Your task to perform on an android device: set an alarm Image 0: 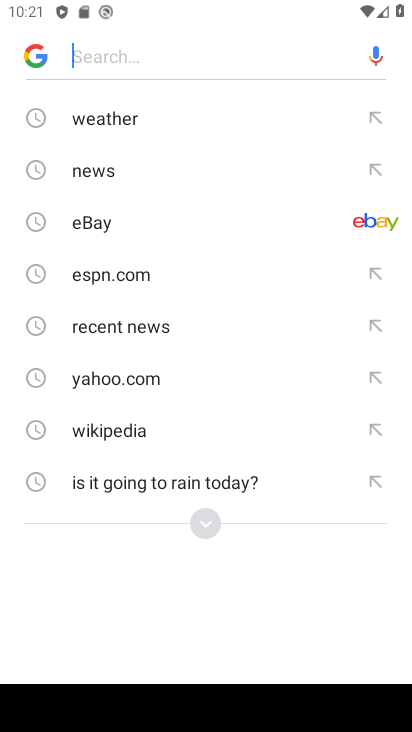
Step 0: press home button
Your task to perform on an android device: set an alarm Image 1: 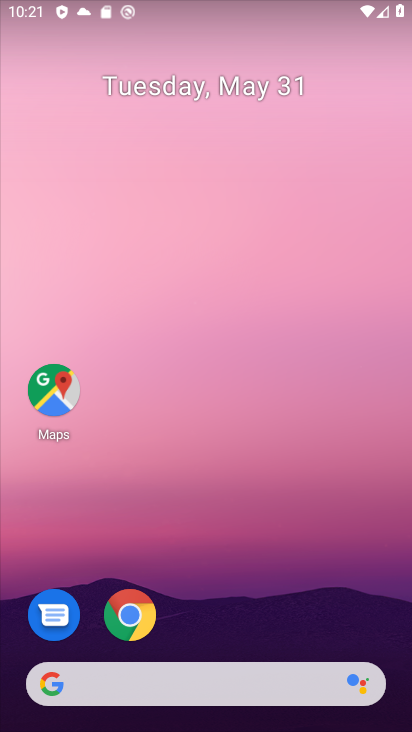
Step 1: drag from (231, 674) to (310, 108)
Your task to perform on an android device: set an alarm Image 2: 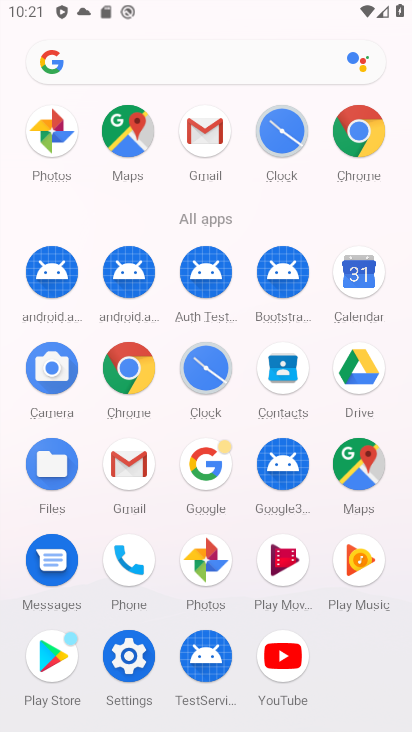
Step 2: click (199, 372)
Your task to perform on an android device: set an alarm Image 3: 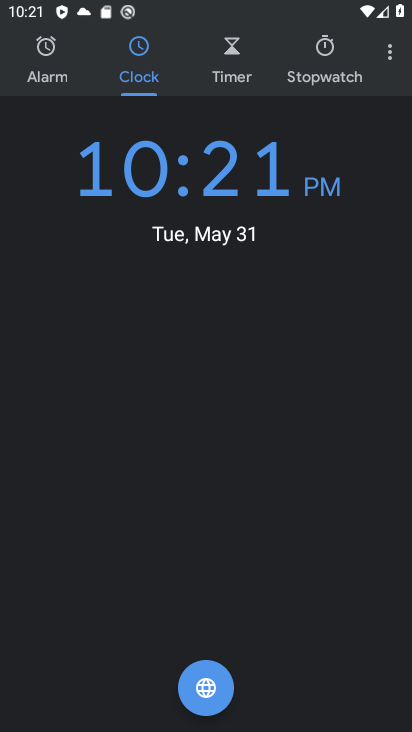
Step 3: click (71, 61)
Your task to perform on an android device: set an alarm Image 4: 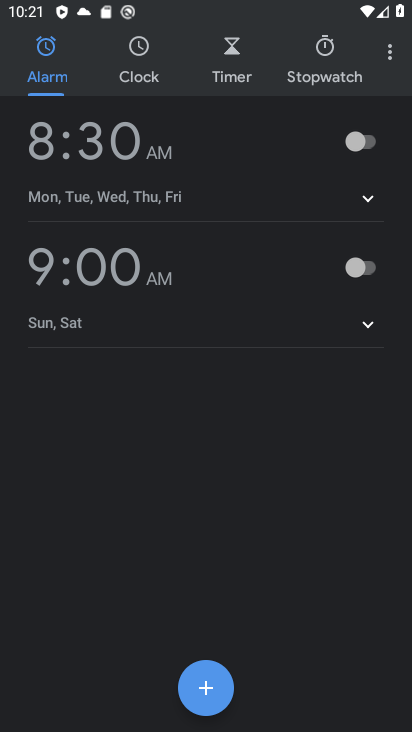
Step 4: click (387, 263)
Your task to perform on an android device: set an alarm Image 5: 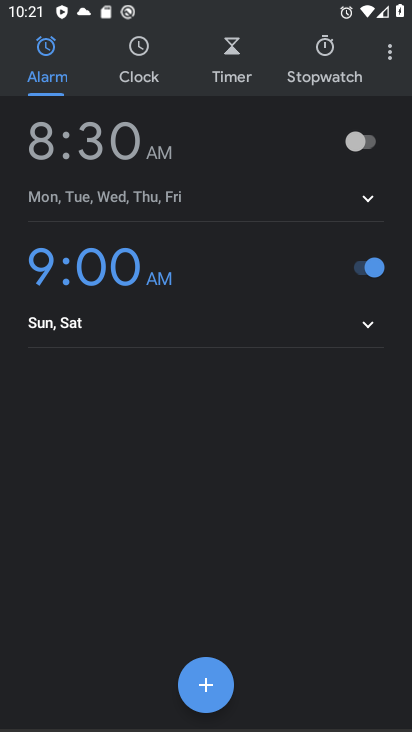
Step 5: task complete